Your task to perform on an android device: empty trash in google photos Image 0: 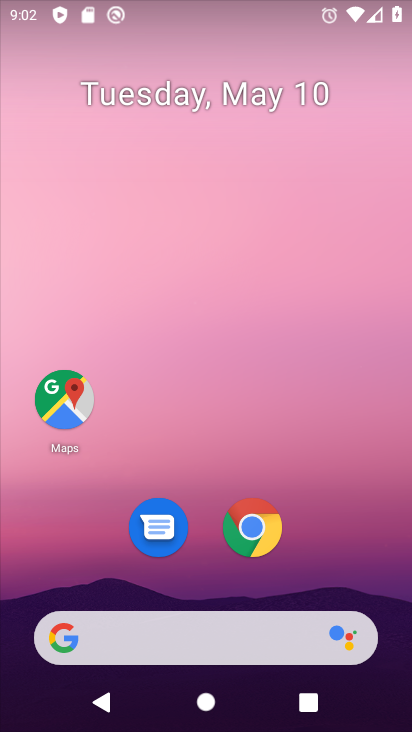
Step 0: drag from (205, 581) to (201, 25)
Your task to perform on an android device: empty trash in google photos Image 1: 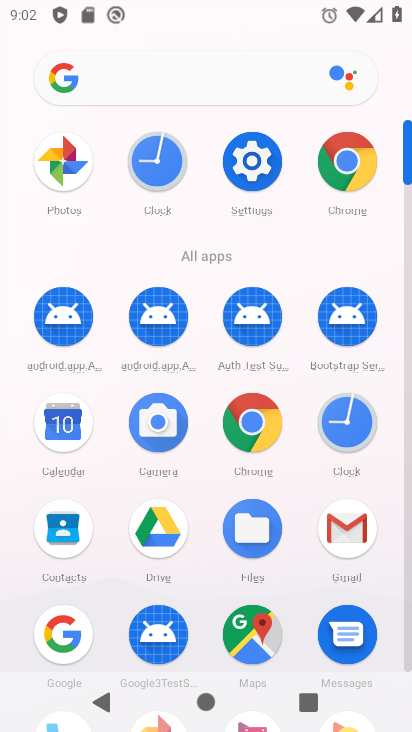
Step 1: click (70, 165)
Your task to perform on an android device: empty trash in google photos Image 2: 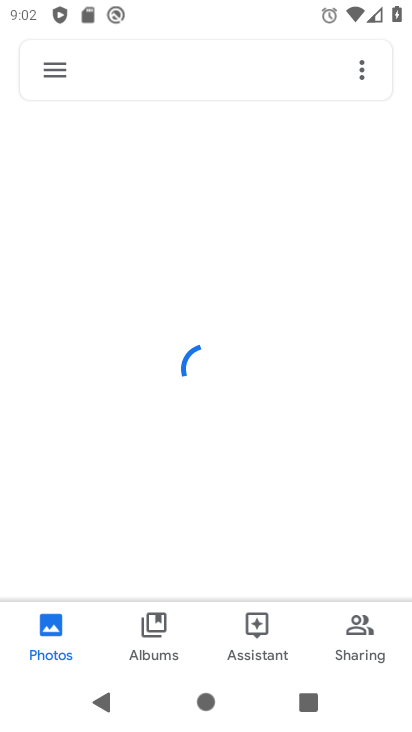
Step 2: click (55, 64)
Your task to perform on an android device: empty trash in google photos Image 3: 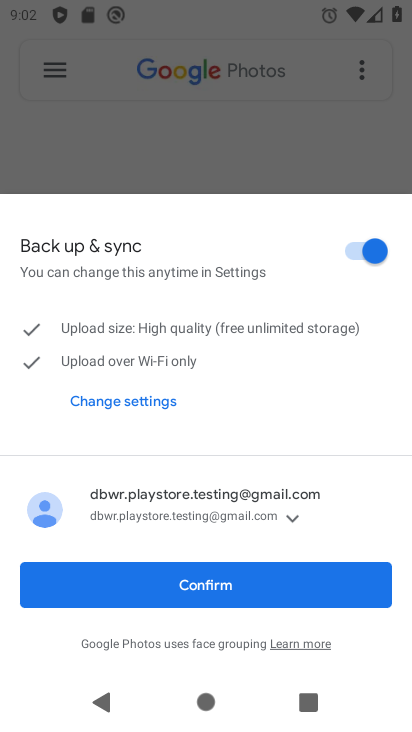
Step 3: click (195, 579)
Your task to perform on an android device: empty trash in google photos Image 4: 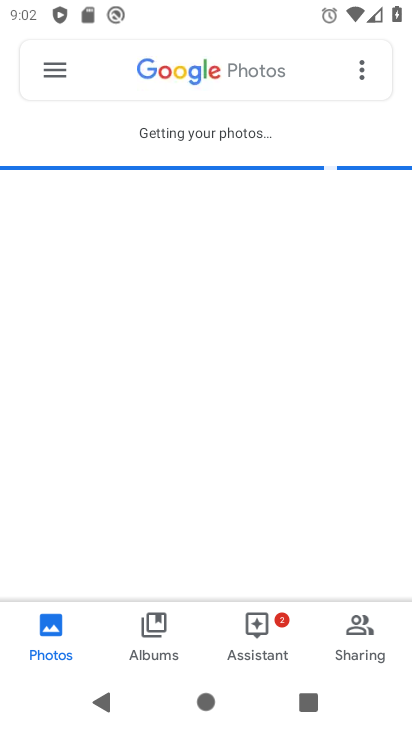
Step 4: click (49, 75)
Your task to perform on an android device: empty trash in google photos Image 5: 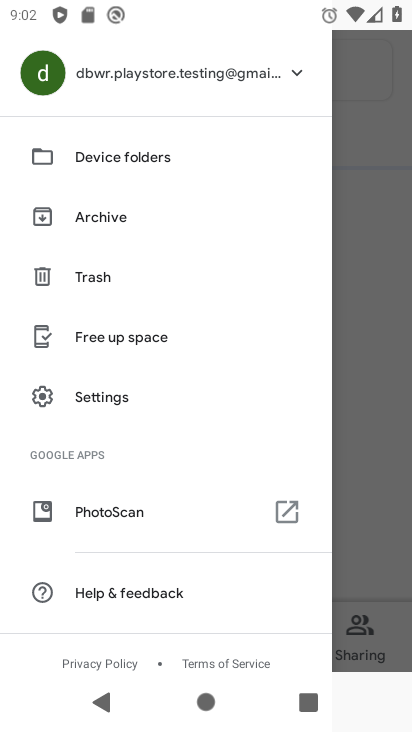
Step 5: click (94, 268)
Your task to perform on an android device: empty trash in google photos Image 6: 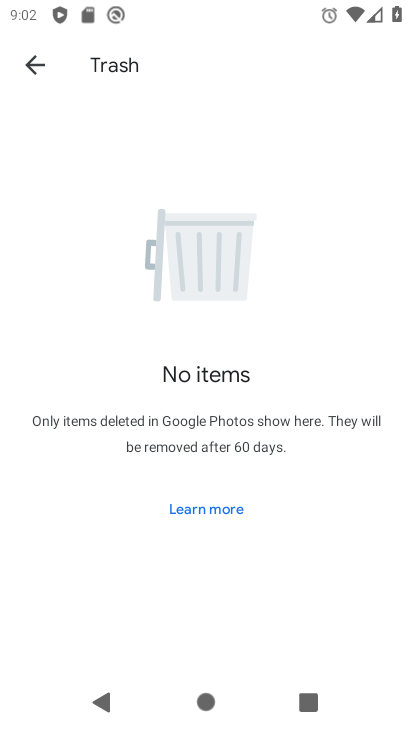
Step 6: task complete